Your task to perform on an android device: What's the weather? Image 0: 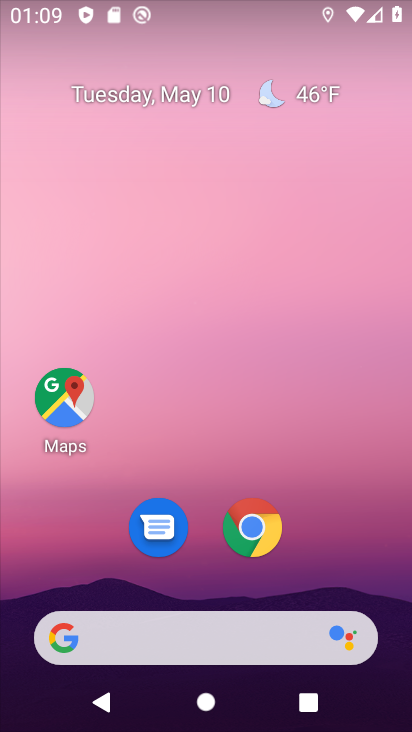
Step 0: click (249, 533)
Your task to perform on an android device: What's the weather? Image 1: 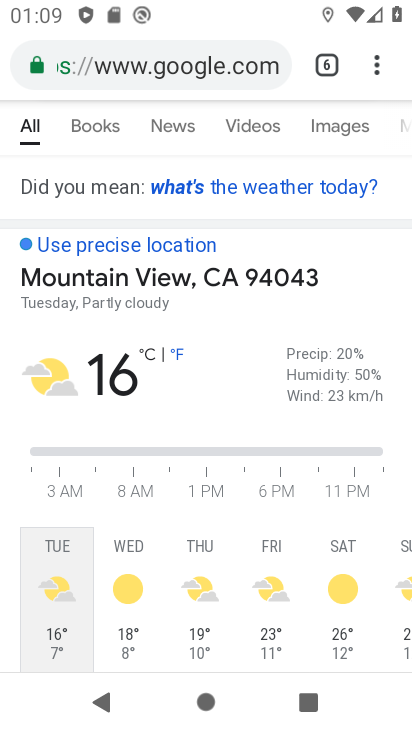
Step 1: task complete